Your task to perform on an android device: Open display settings Image 0: 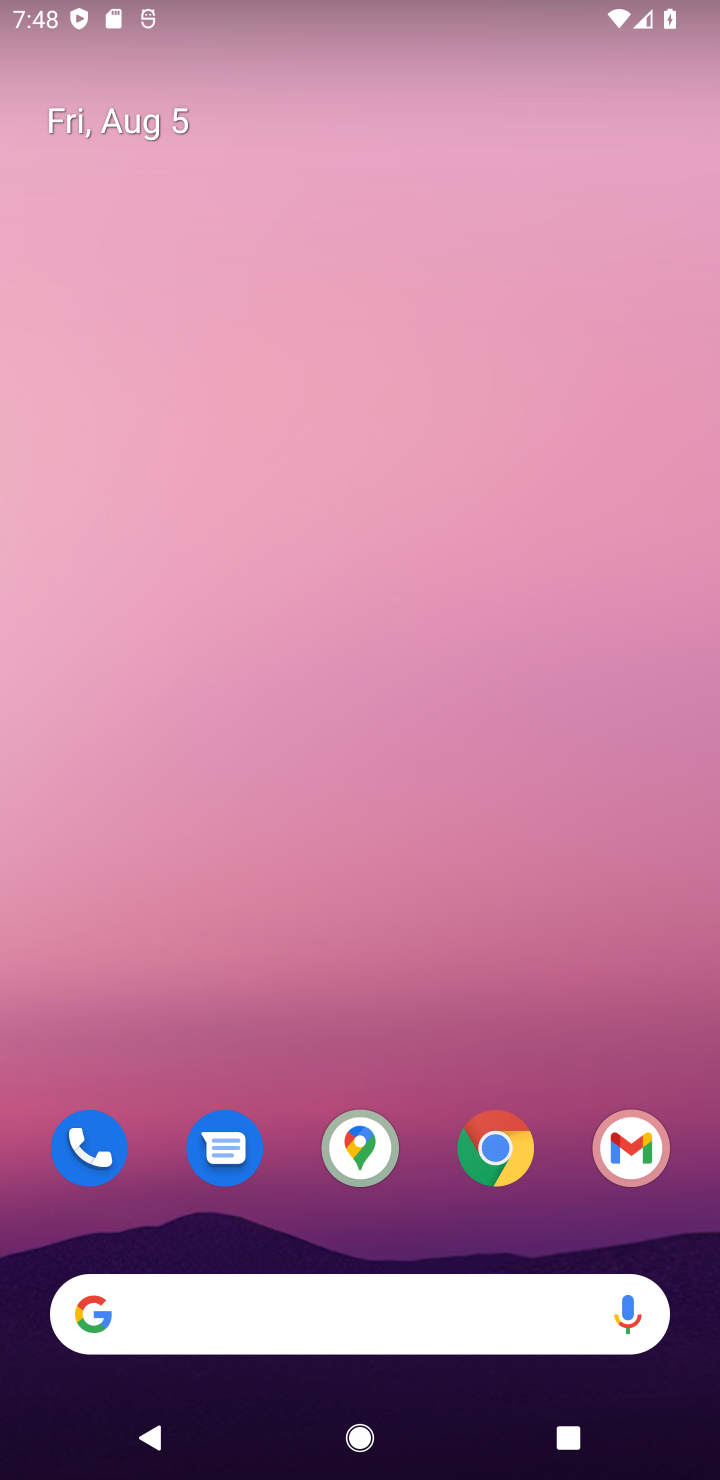
Step 0: drag from (428, 1229) to (422, 439)
Your task to perform on an android device: Open display settings Image 1: 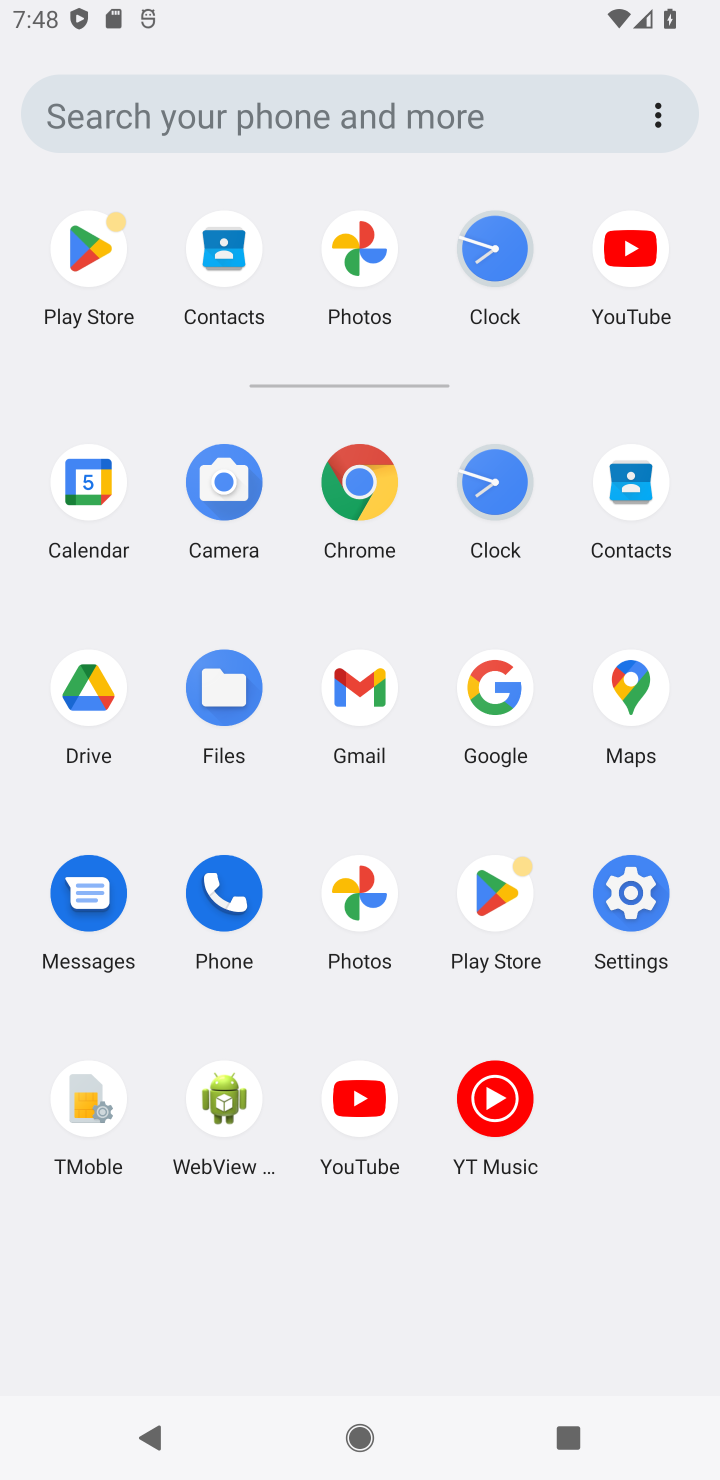
Step 1: click (610, 929)
Your task to perform on an android device: Open display settings Image 2: 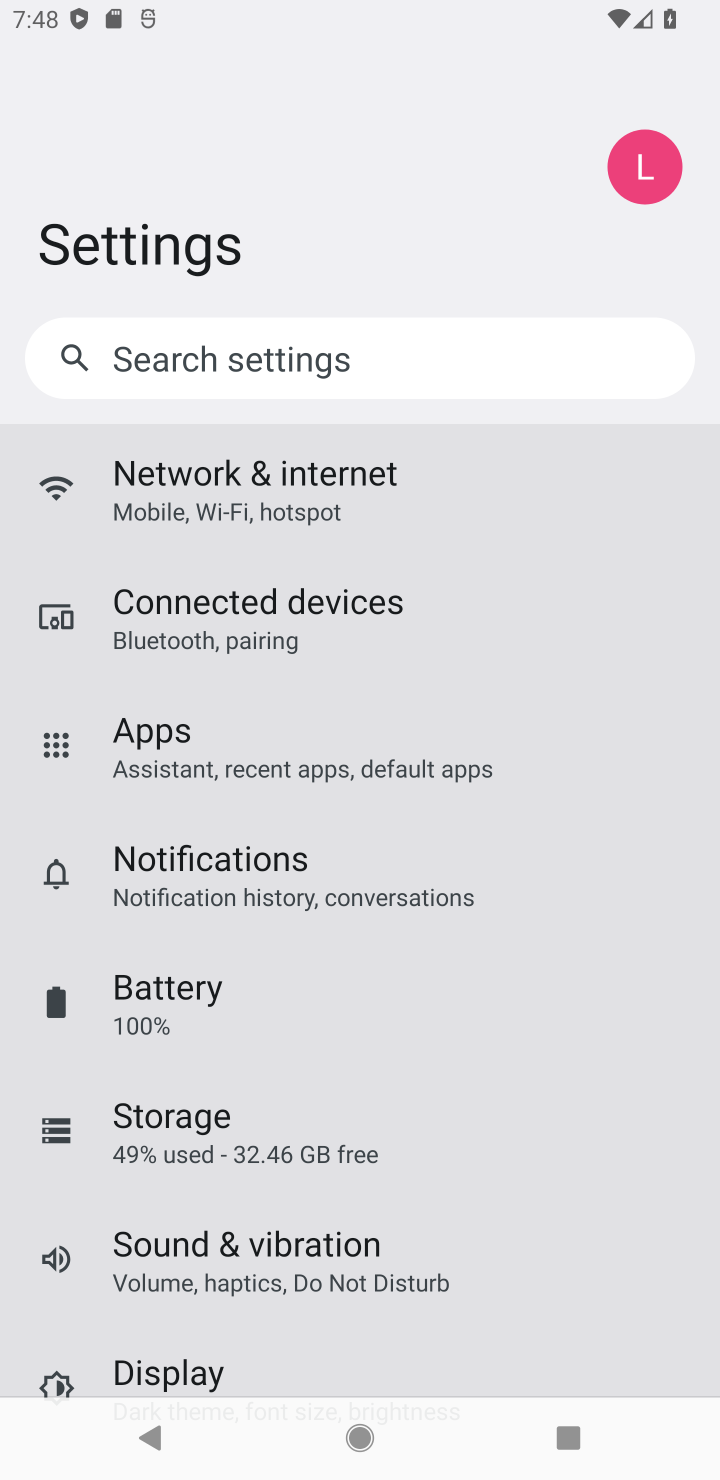
Step 2: click (329, 1358)
Your task to perform on an android device: Open display settings Image 3: 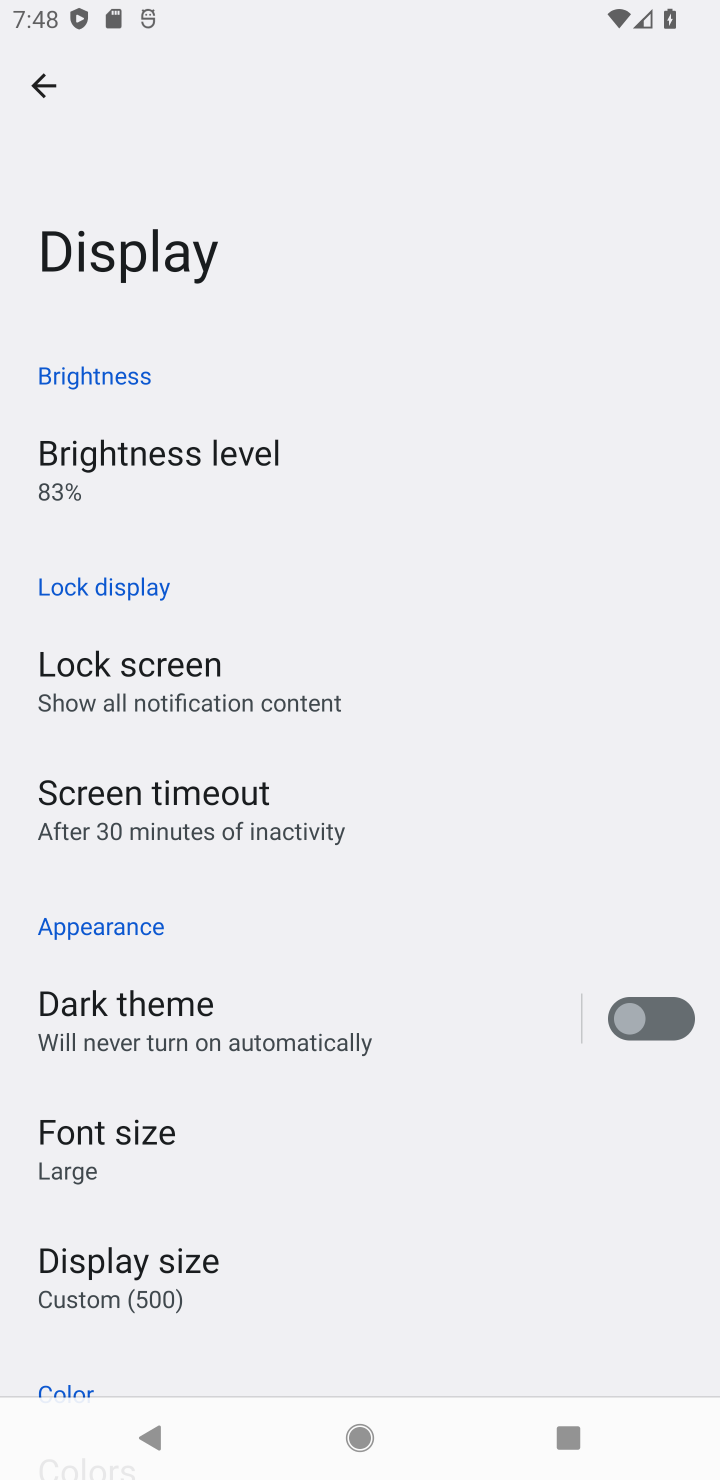
Step 3: task complete